Your task to perform on an android device: turn on wifi Image 0: 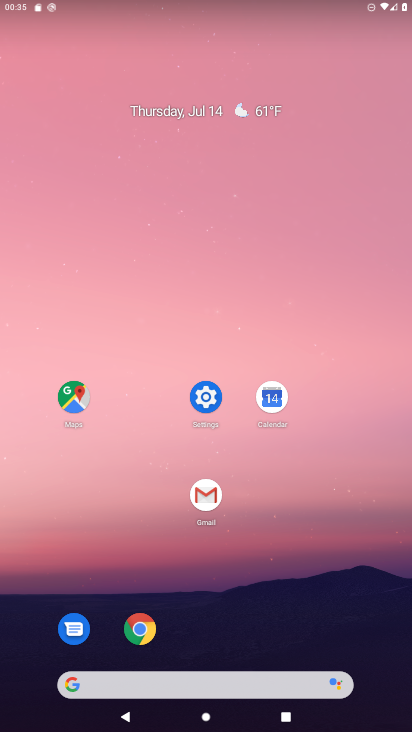
Step 0: click (201, 394)
Your task to perform on an android device: turn on wifi Image 1: 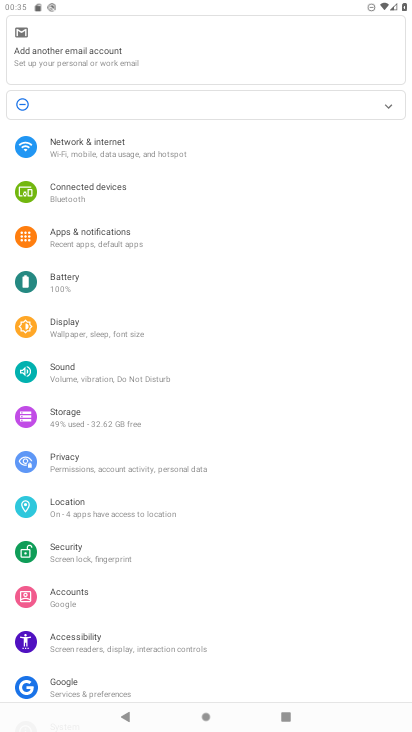
Step 1: click (106, 152)
Your task to perform on an android device: turn on wifi Image 2: 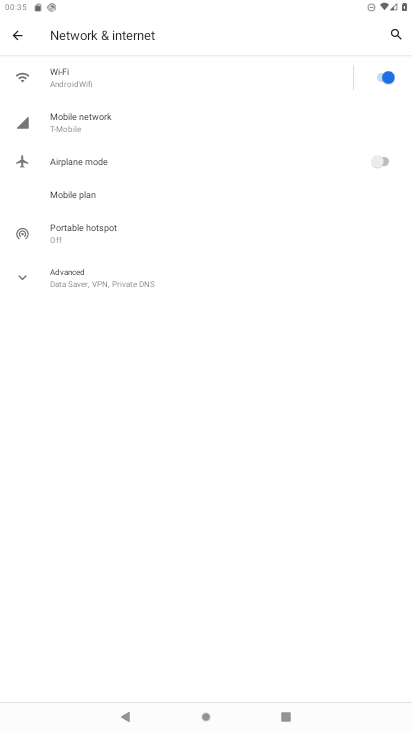
Step 2: task complete